Your task to perform on an android device: Do I have any events tomorrow? Image 0: 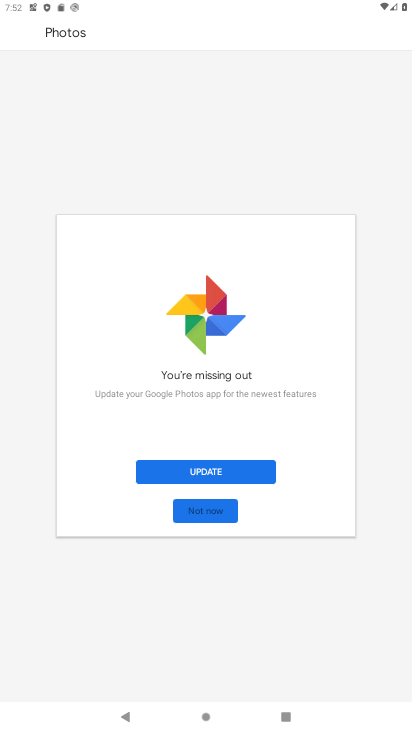
Step 0: press home button
Your task to perform on an android device: Do I have any events tomorrow? Image 1: 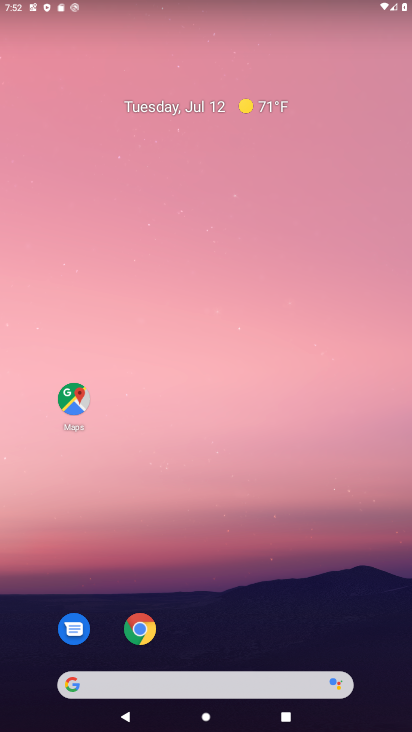
Step 1: drag from (381, 664) to (350, 310)
Your task to perform on an android device: Do I have any events tomorrow? Image 2: 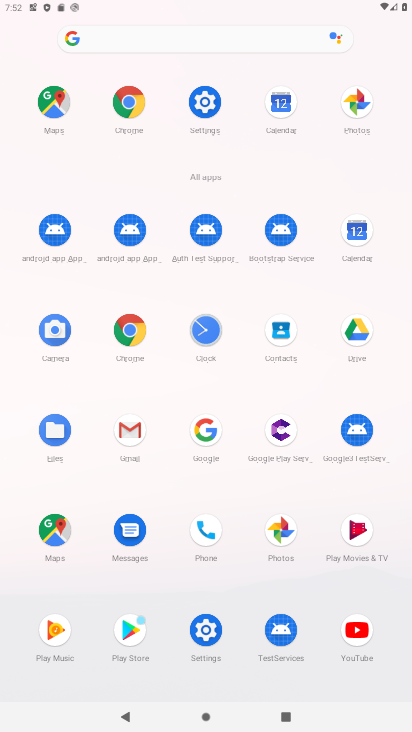
Step 2: click (353, 228)
Your task to perform on an android device: Do I have any events tomorrow? Image 3: 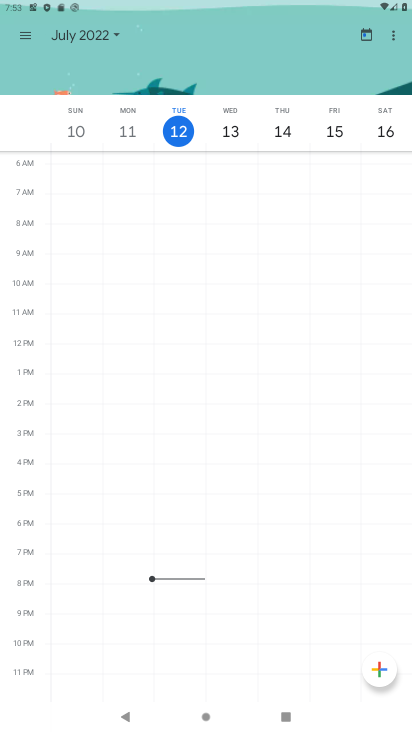
Step 3: click (227, 126)
Your task to perform on an android device: Do I have any events tomorrow? Image 4: 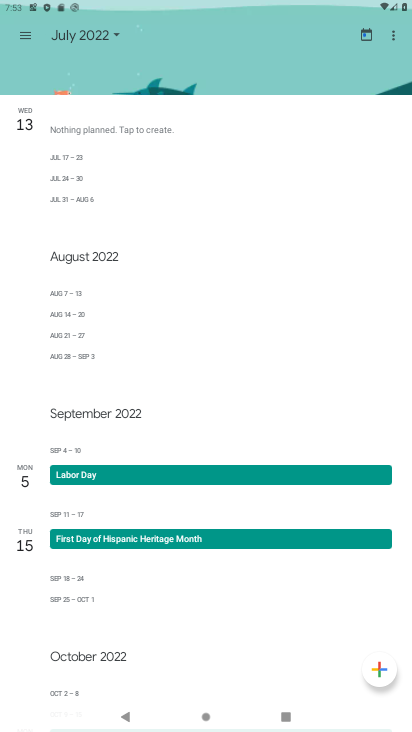
Step 4: task complete